Your task to perform on an android device: Go to CNN.com Image 0: 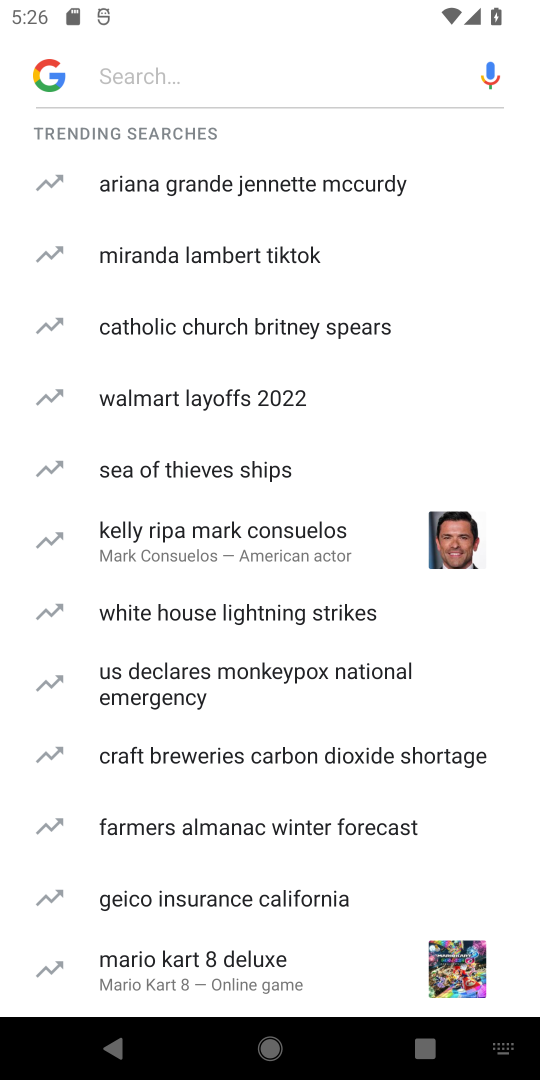
Step 0: type "CNN.com"
Your task to perform on an android device: Go to CNN.com Image 1: 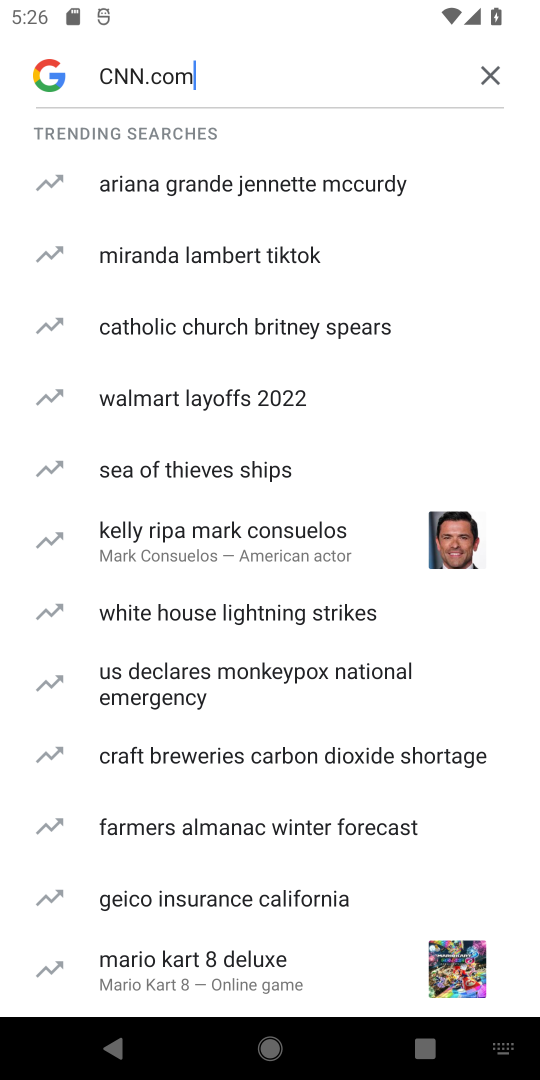
Step 1: type ""
Your task to perform on an android device: Go to CNN.com Image 2: 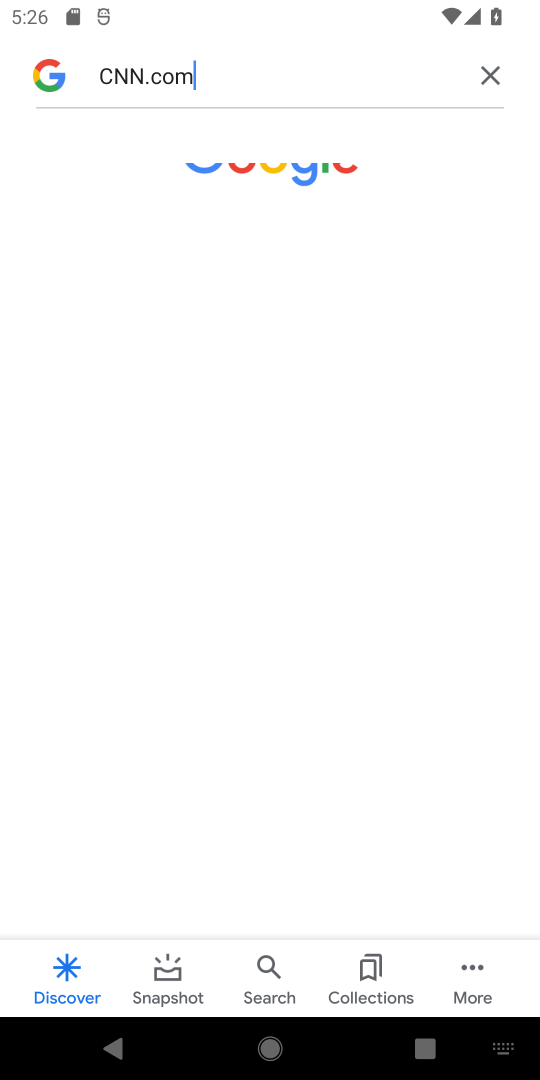
Step 2: task complete